Your task to perform on an android device: open a new tab in the chrome app Image 0: 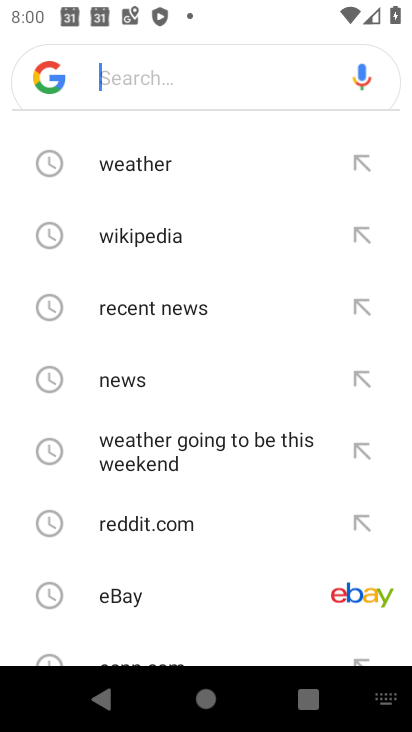
Step 0: press home button
Your task to perform on an android device: open a new tab in the chrome app Image 1: 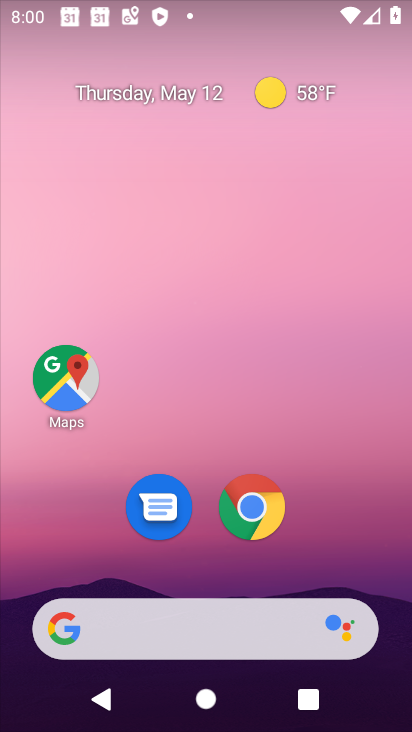
Step 1: click (261, 482)
Your task to perform on an android device: open a new tab in the chrome app Image 2: 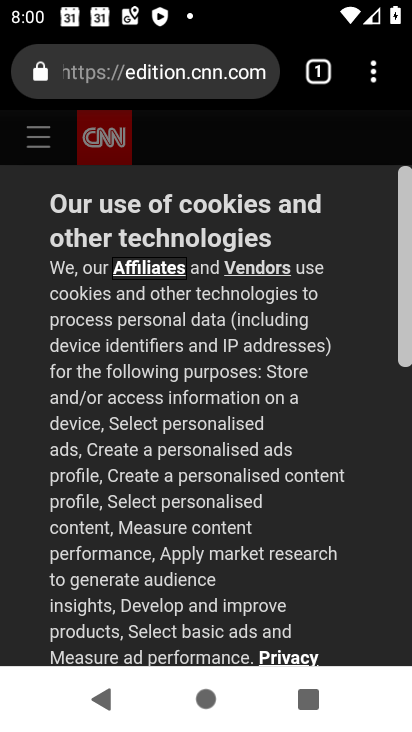
Step 2: click (315, 59)
Your task to perform on an android device: open a new tab in the chrome app Image 3: 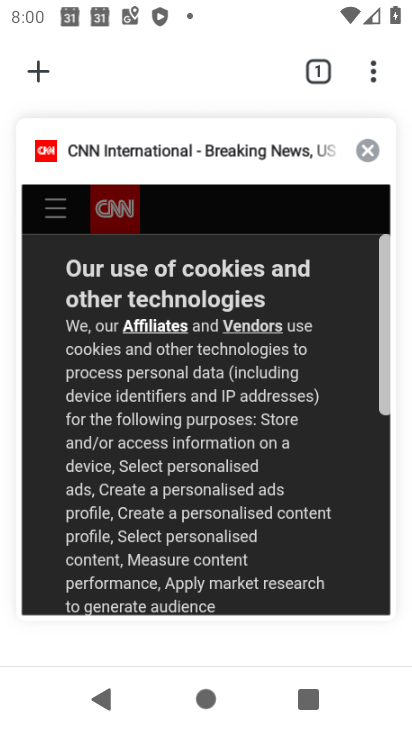
Step 3: click (30, 71)
Your task to perform on an android device: open a new tab in the chrome app Image 4: 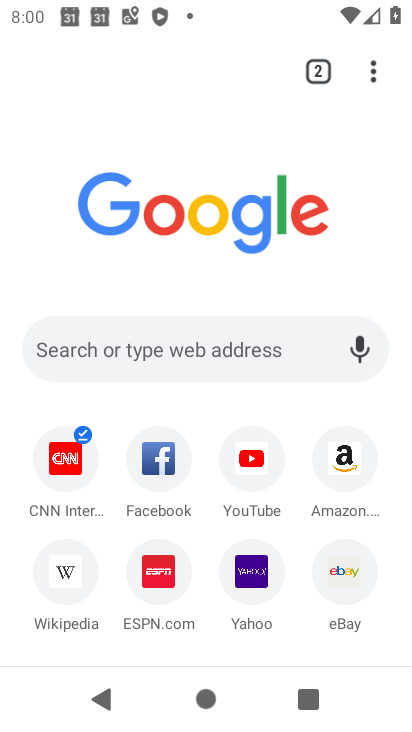
Step 4: task complete